Your task to perform on an android device: stop showing notifications on the lock screen Image 0: 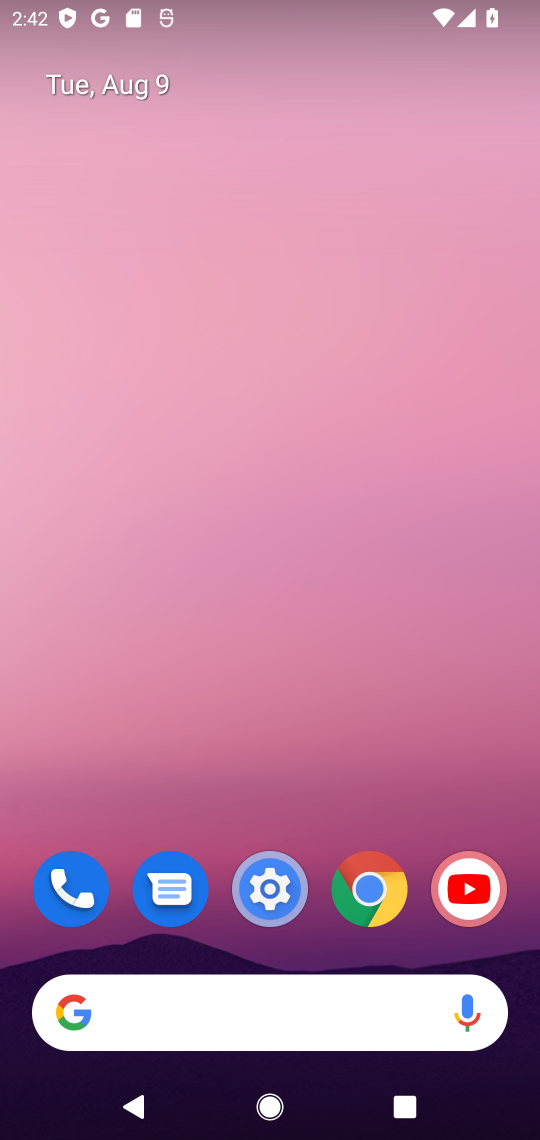
Step 0: drag from (308, 762) to (361, 298)
Your task to perform on an android device: stop showing notifications on the lock screen Image 1: 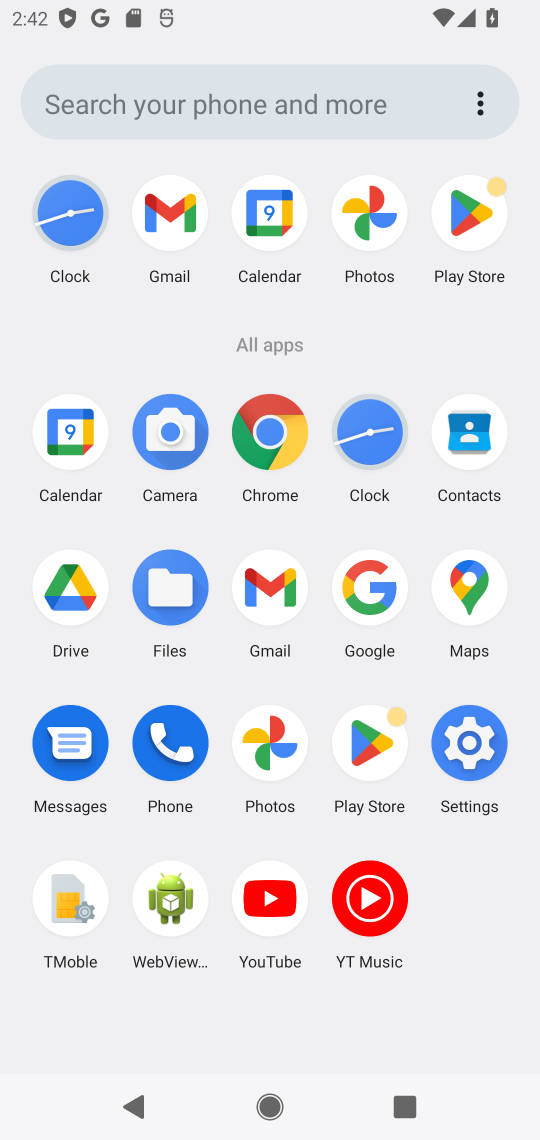
Step 1: click (464, 747)
Your task to perform on an android device: stop showing notifications on the lock screen Image 2: 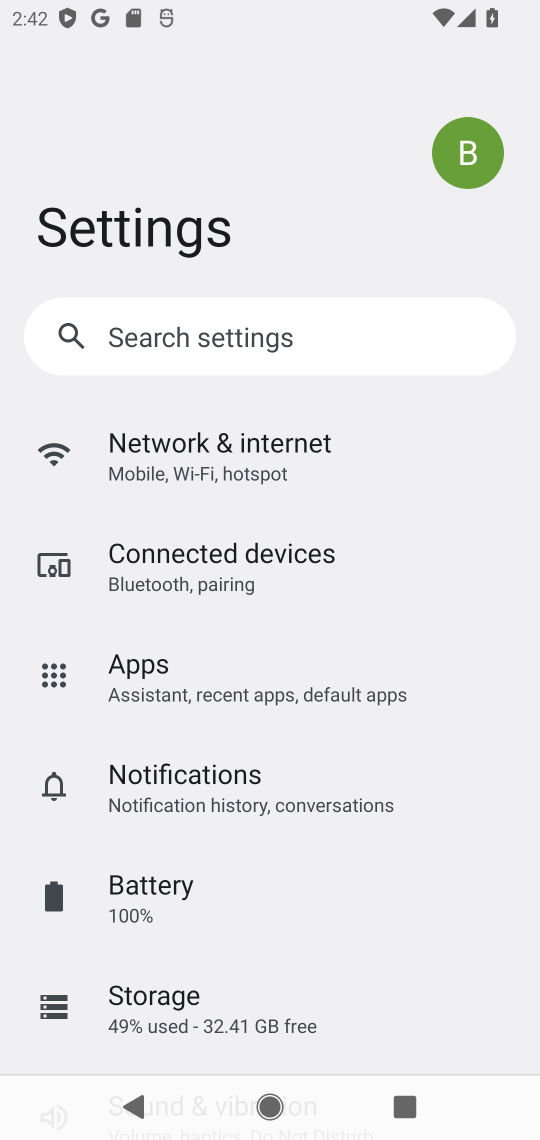
Step 2: click (318, 777)
Your task to perform on an android device: stop showing notifications on the lock screen Image 3: 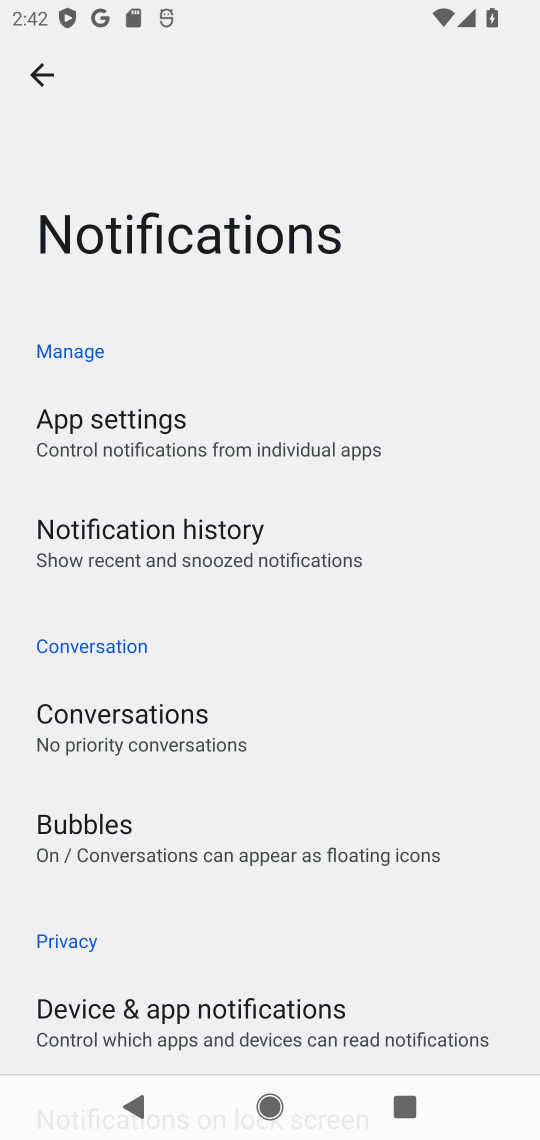
Step 3: drag from (314, 740) to (326, 327)
Your task to perform on an android device: stop showing notifications on the lock screen Image 4: 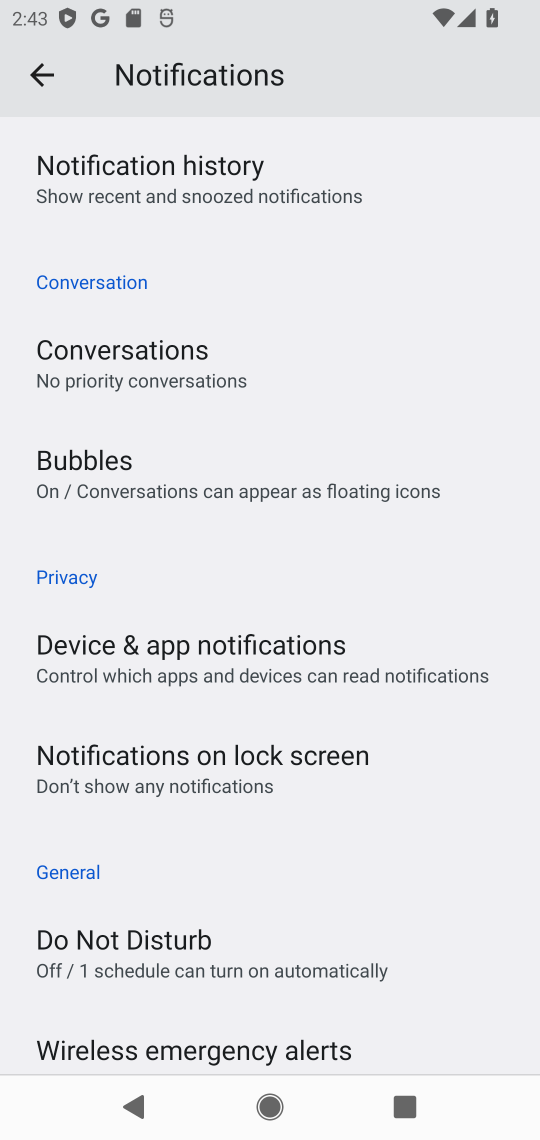
Step 4: click (299, 761)
Your task to perform on an android device: stop showing notifications on the lock screen Image 5: 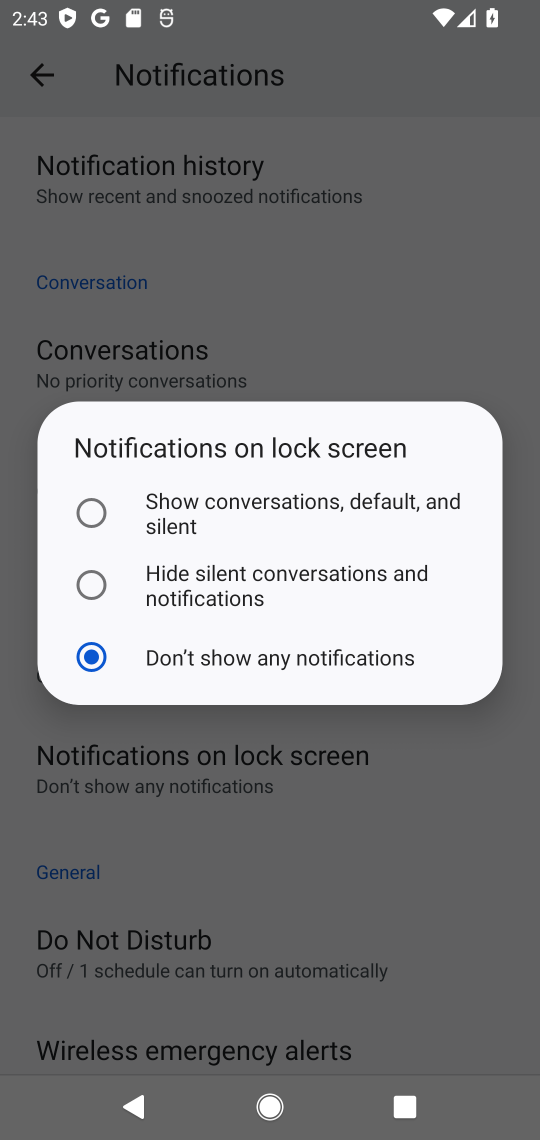
Step 5: click (275, 661)
Your task to perform on an android device: stop showing notifications on the lock screen Image 6: 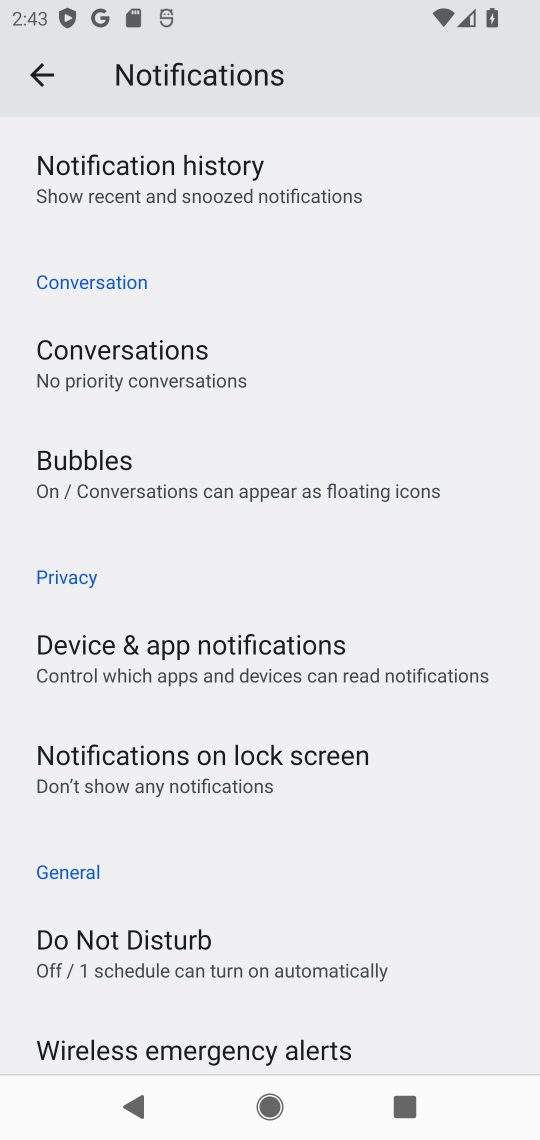
Step 6: task complete